Your task to perform on an android device: Check the news Image 0: 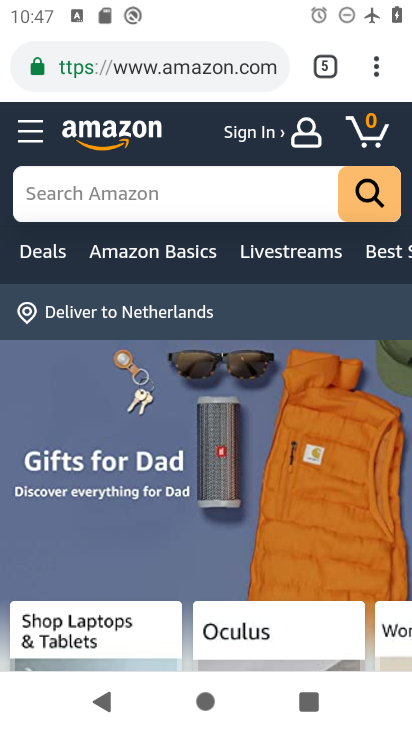
Step 0: press home button
Your task to perform on an android device: Check the news Image 1: 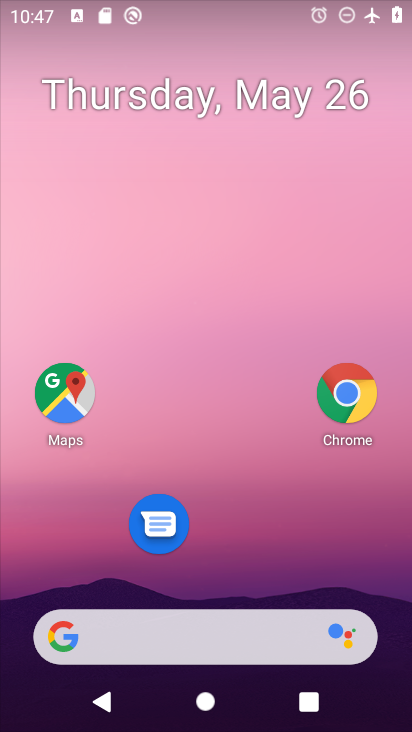
Step 1: click (275, 644)
Your task to perform on an android device: Check the news Image 2: 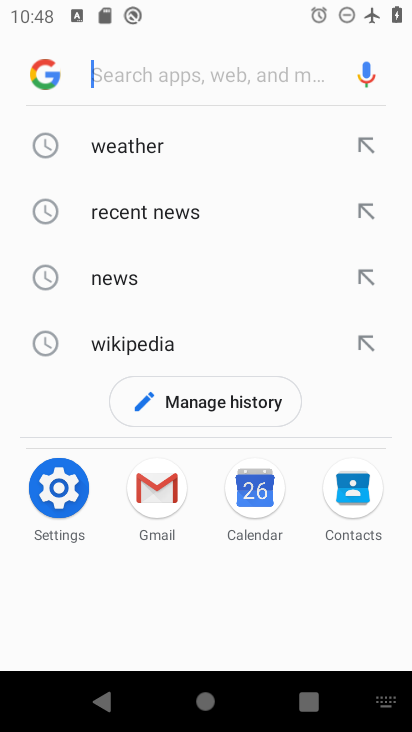
Step 2: click (125, 280)
Your task to perform on an android device: Check the news Image 3: 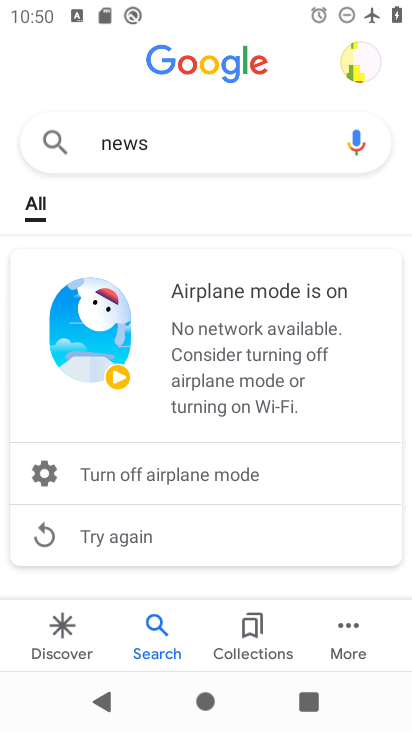
Step 3: task complete